Your task to perform on an android device: find photos in the google photos app Image 0: 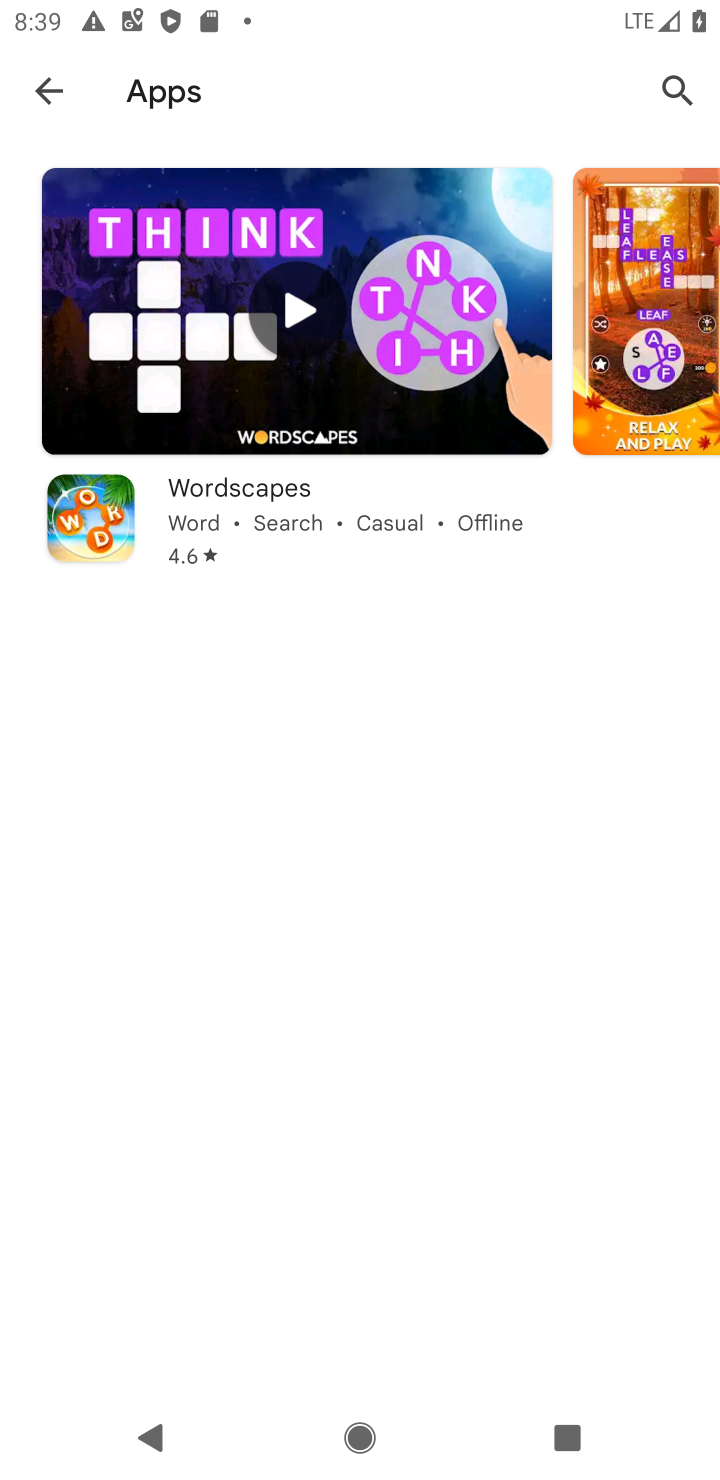
Step 0: press back button
Your task to perform on an android device: find photos in the google photos app Image 1: 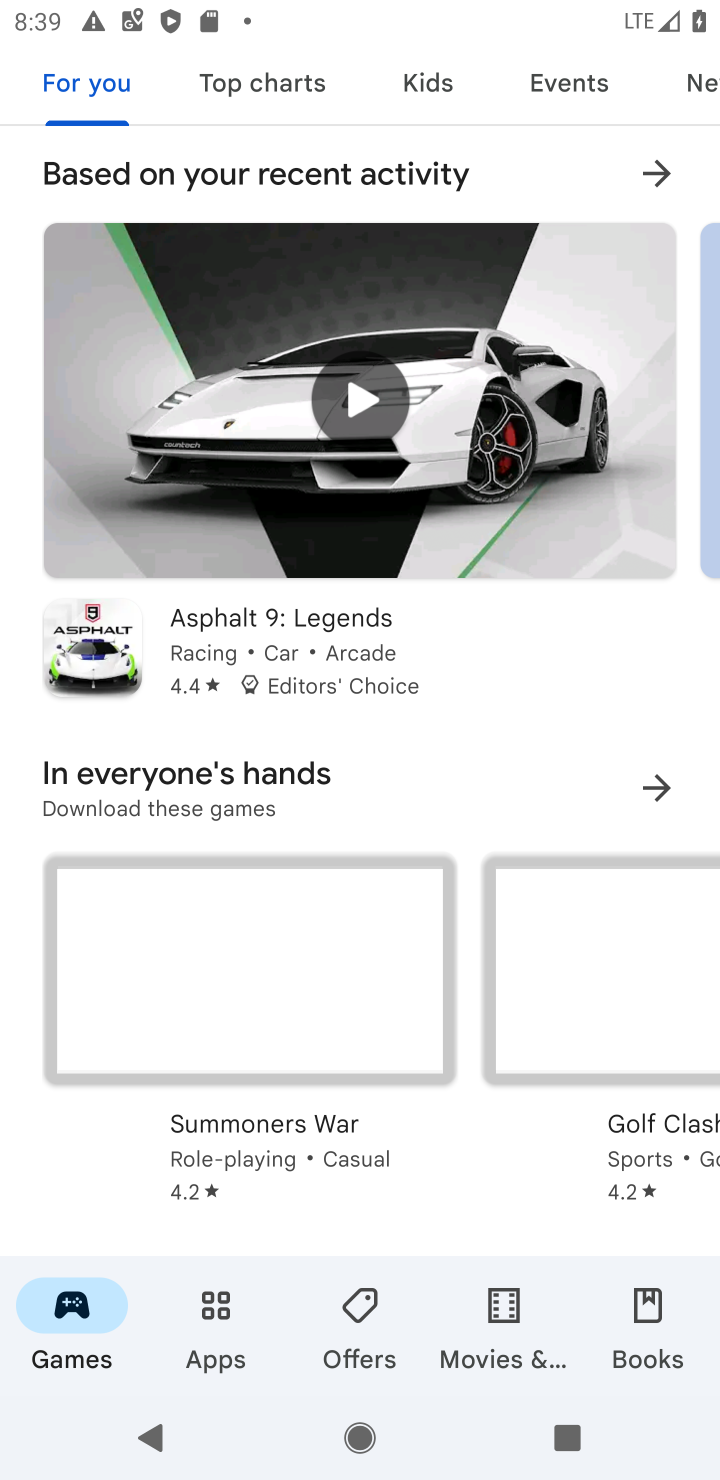
Step 1: press back button
Your task to perform on an android device: find photos in the google photos app Image 2: 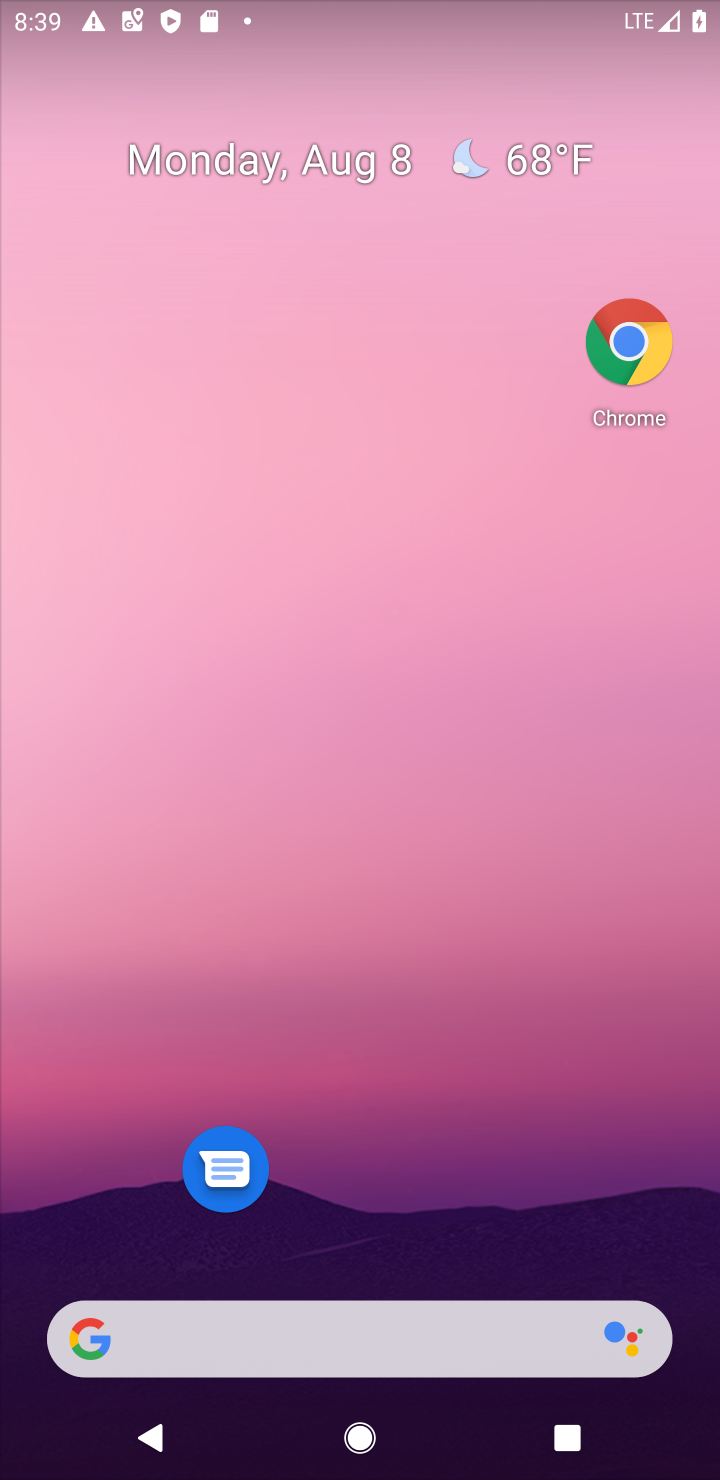
Step 2: drag from (403, 1028) to (540, 42)
Your task to perform on an android device: find photos in the google photos app Image 3: 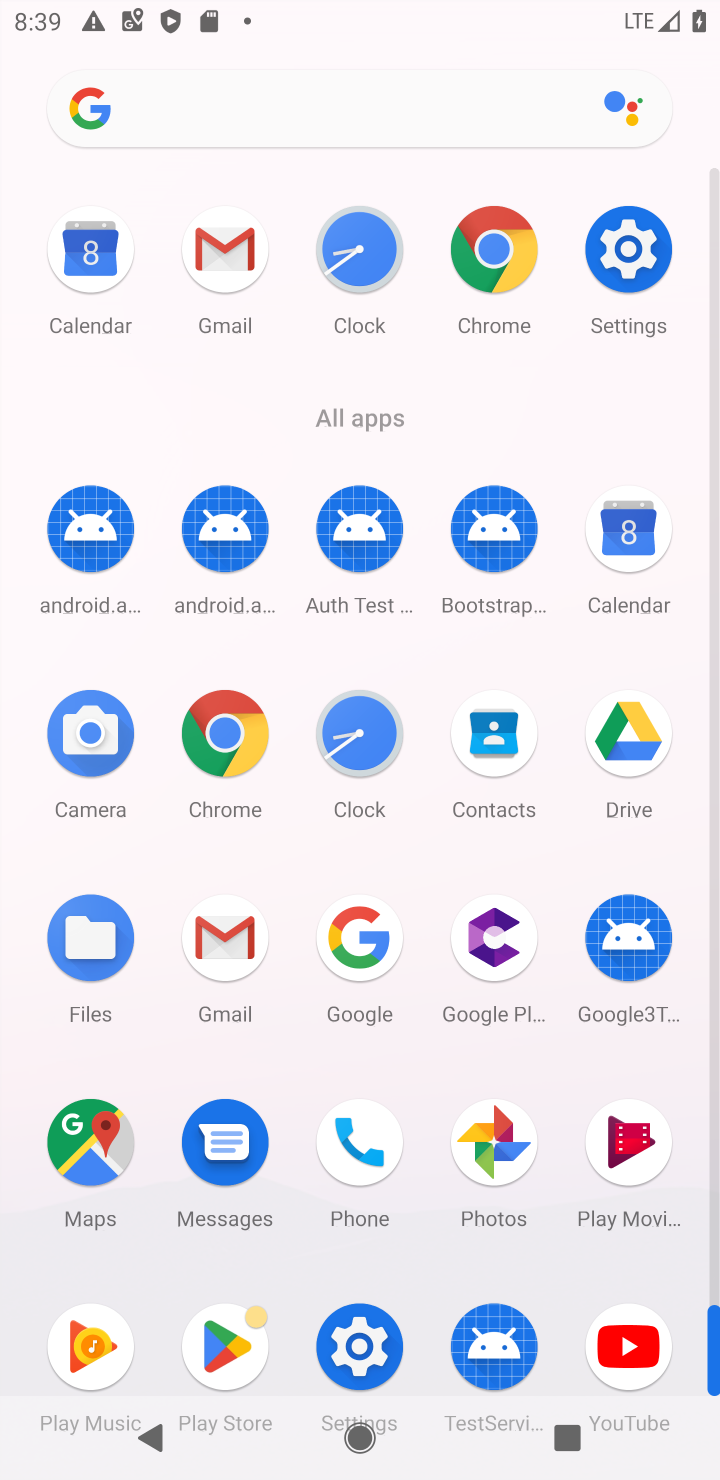
Step 3: click (478, 1134)
Your task to perform on an android device: find photos in the google photos app Image 4: 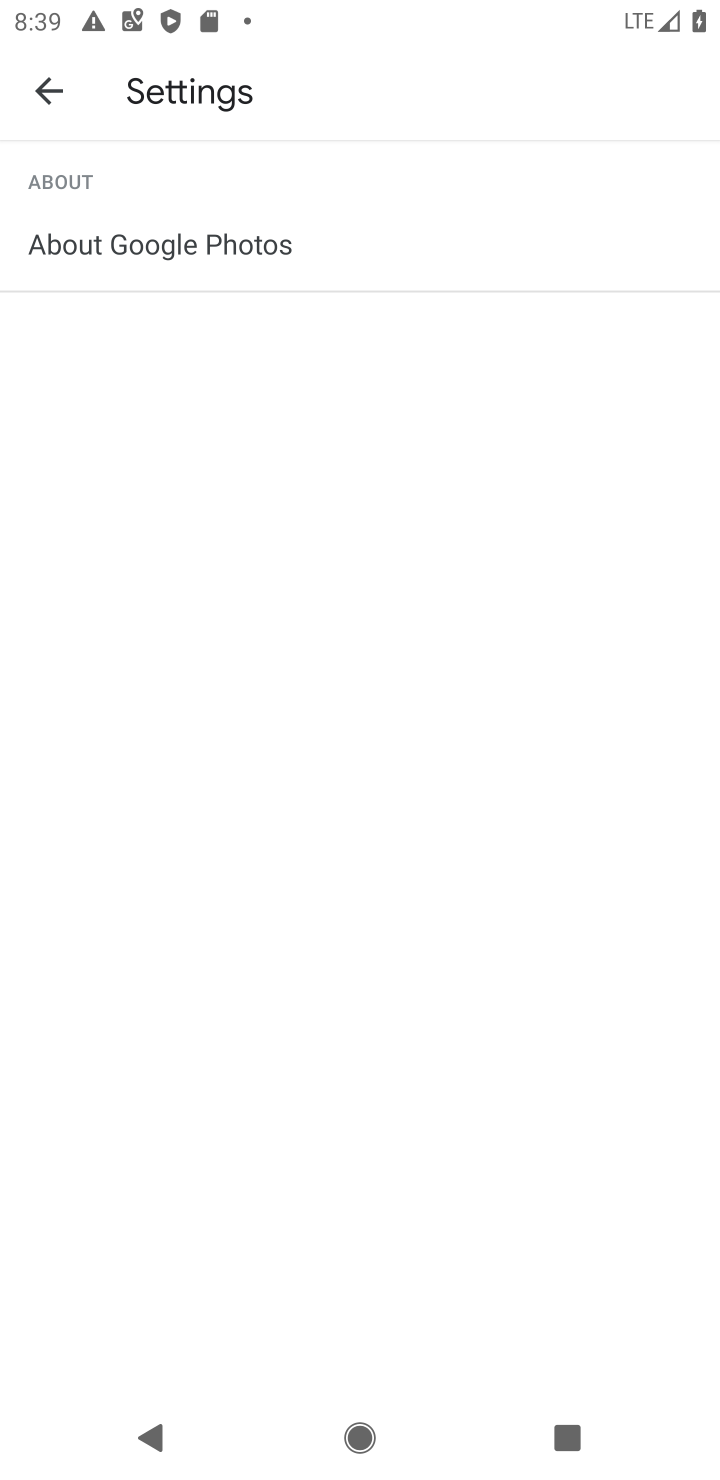
Step 4: click (57, 85)
Your task to perform on an android device: find photos in the google photos app Image 5: 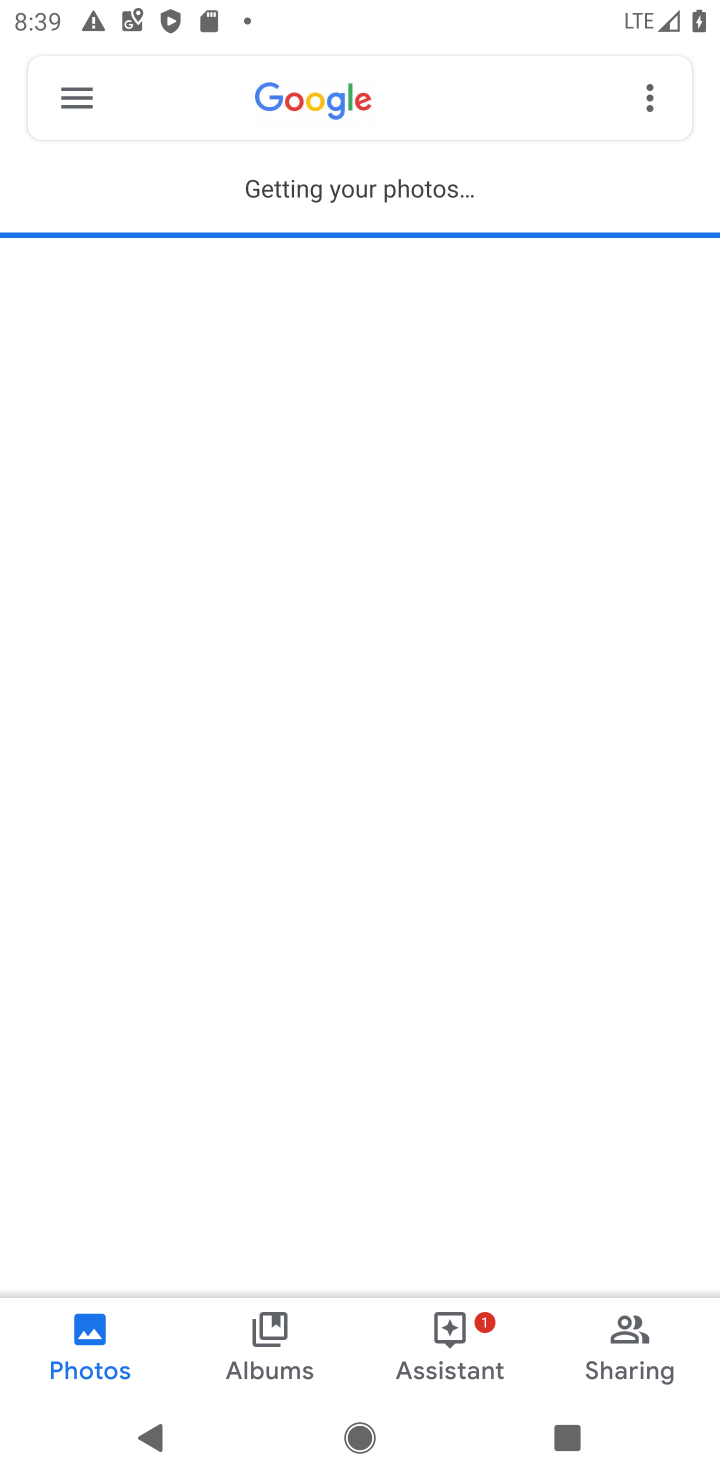
Step 5: click (74, 1334)
Your task to perform on an android device: find photos in the google photos app Image 6: 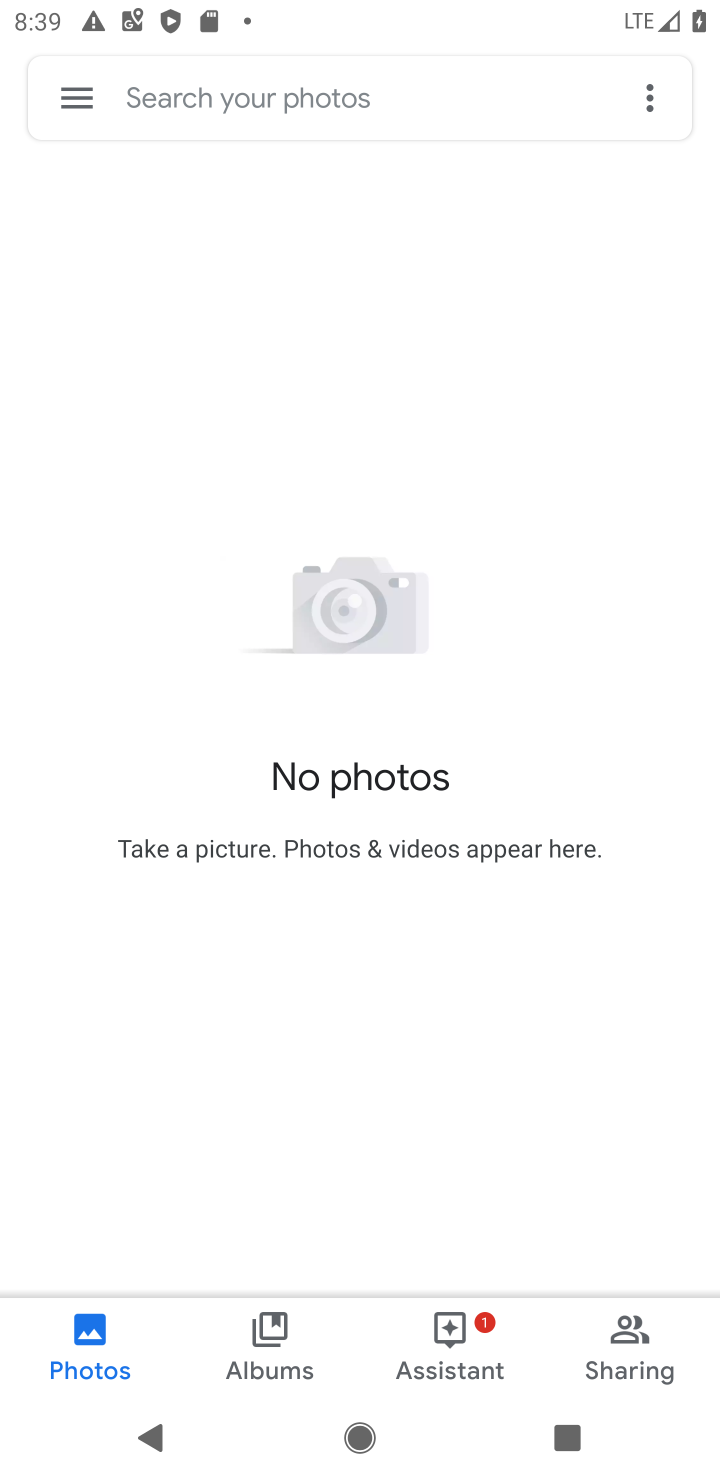
Step 6: task complete